Your task to perform on an android device: Go to settings Image 0: 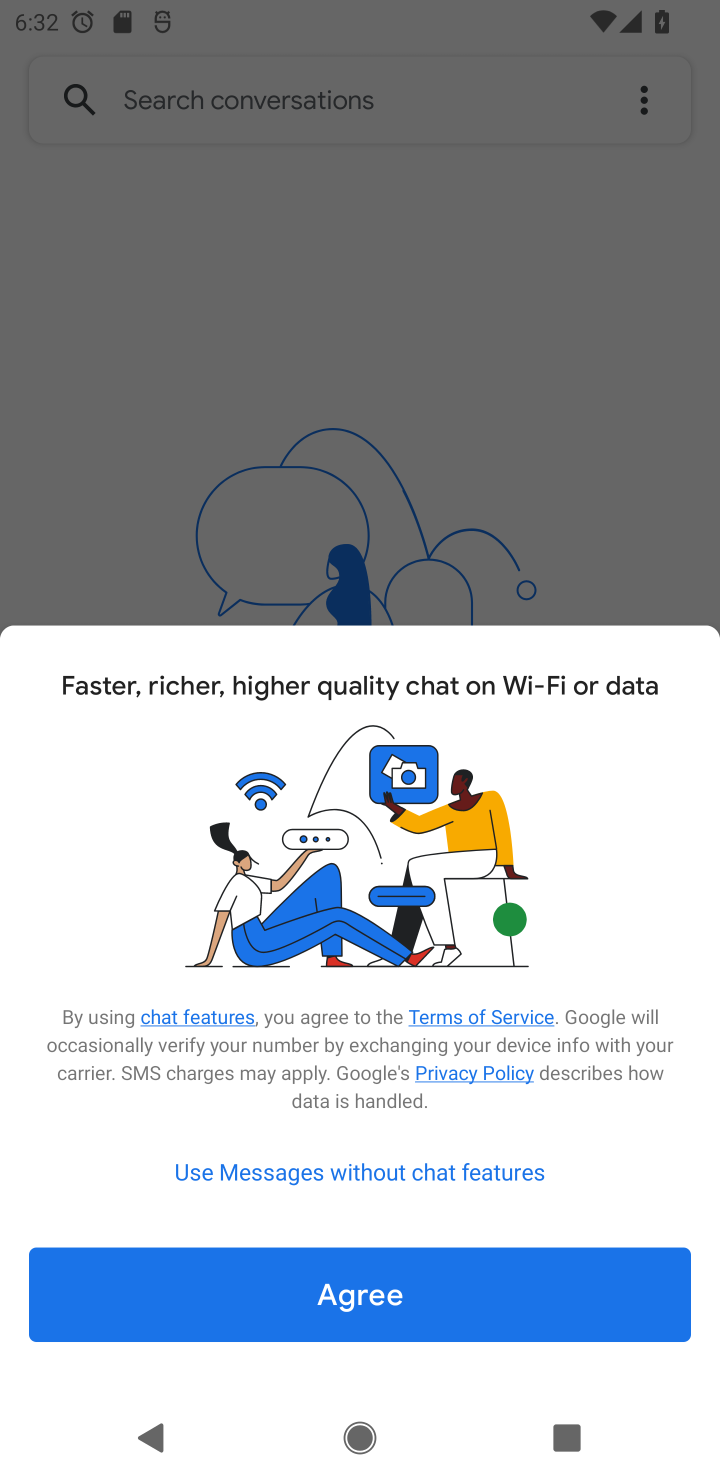
Step 0: press home button
Your task to perform on an android device: Go to settings Image 1: 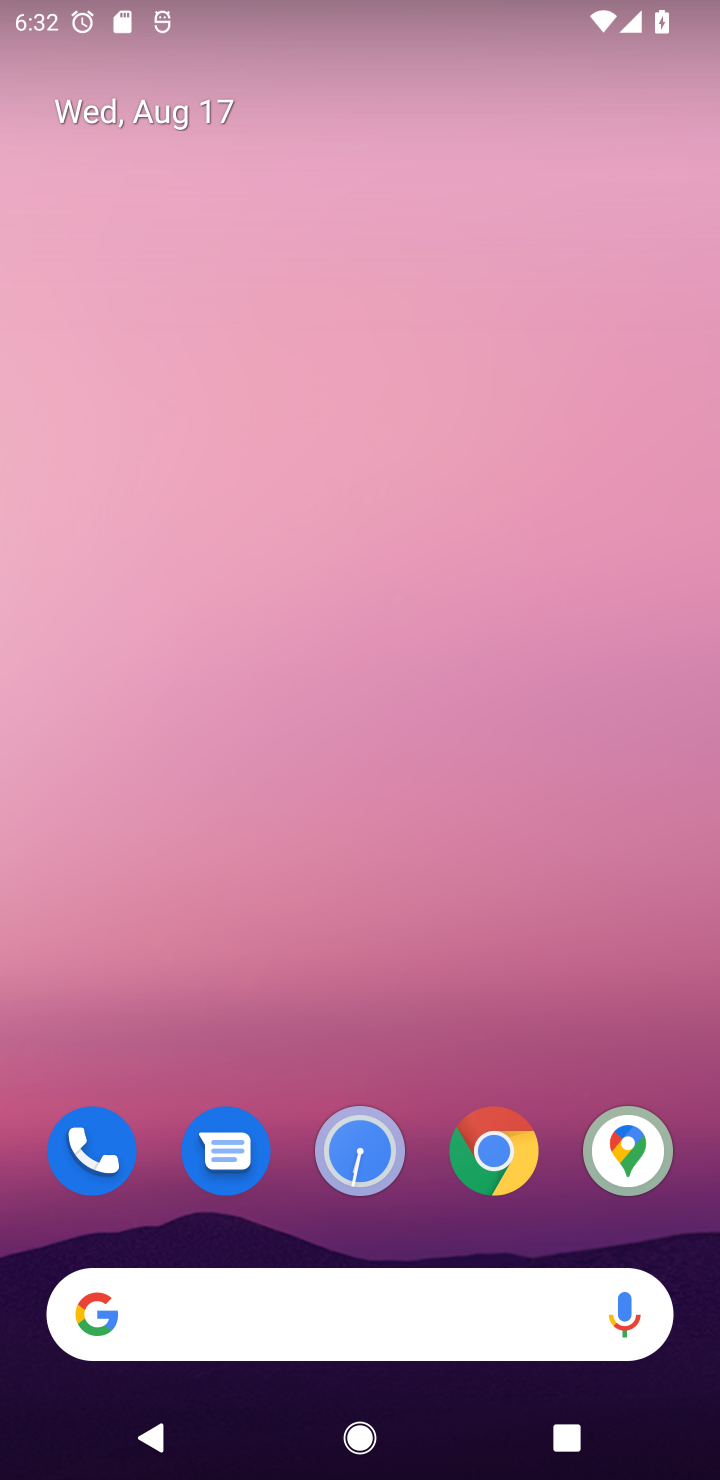
Step 1: drag from (414, 1214) to (370, 47)
Your task to perform on an android device: Go to settings Image 2: 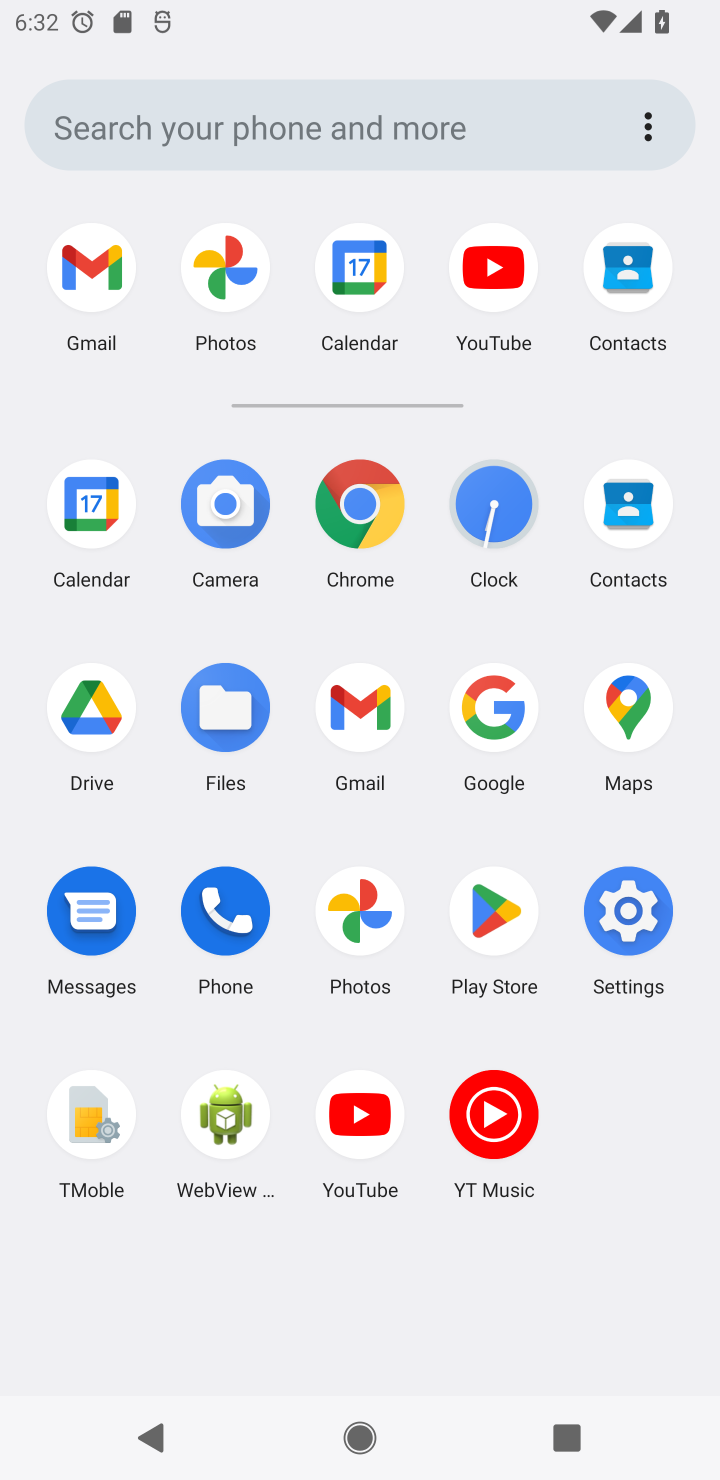
Step 2: click (643, 929)
Your task to perform on an android device: Go to settings Image 3: 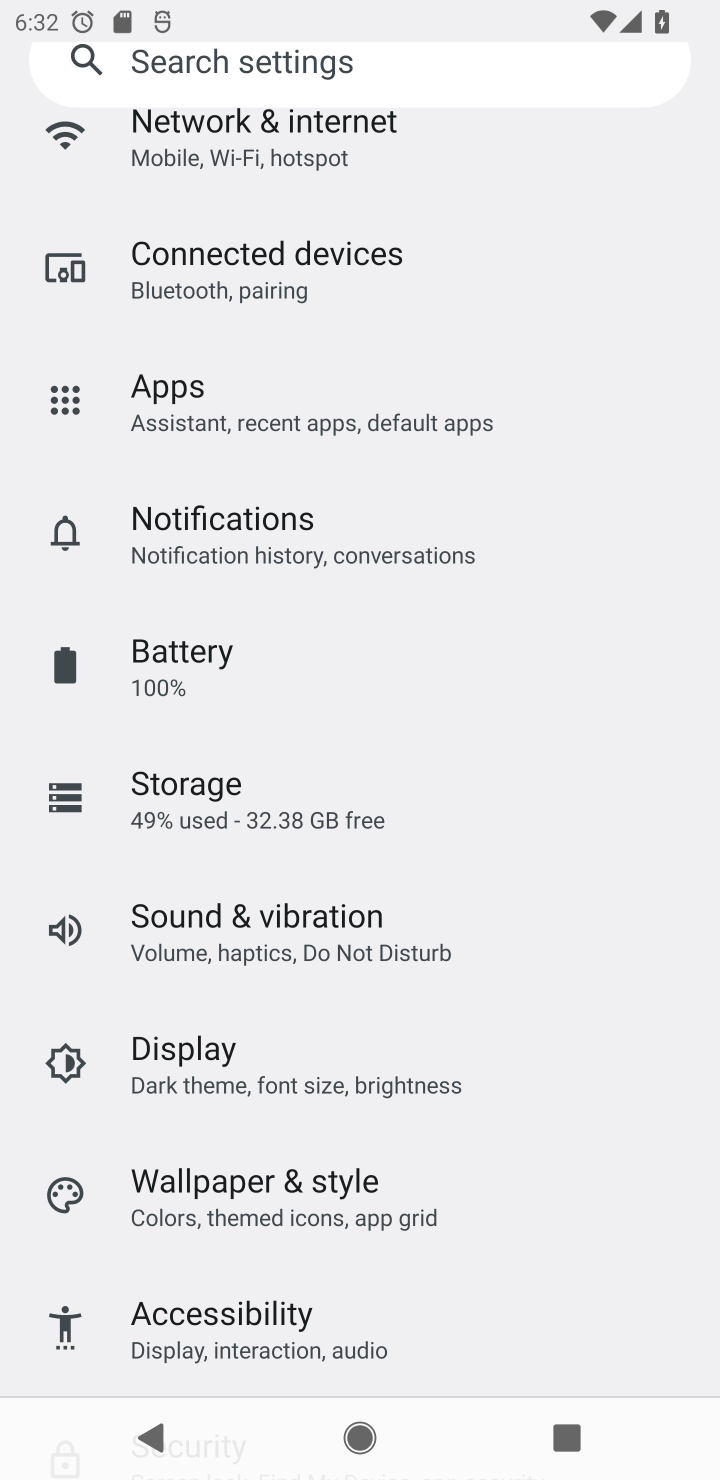
Step 3: task complete